Your task to perform on an android device: clear all cookies in the chrome app Image 0: 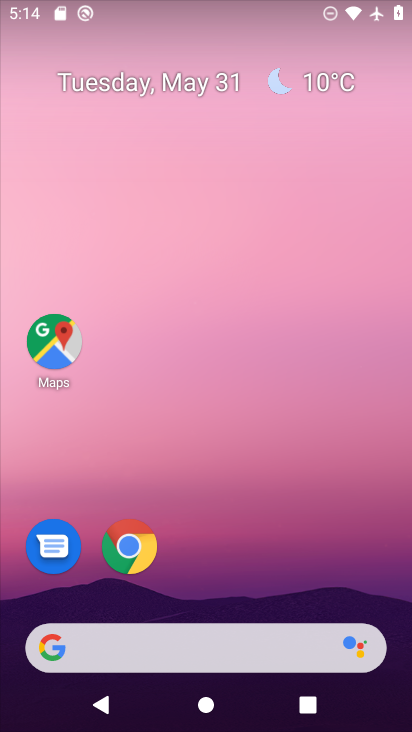
Step 0: click (142, 552)
Your task to perform on an android device: clear all cookies in the chrome app Image 1: 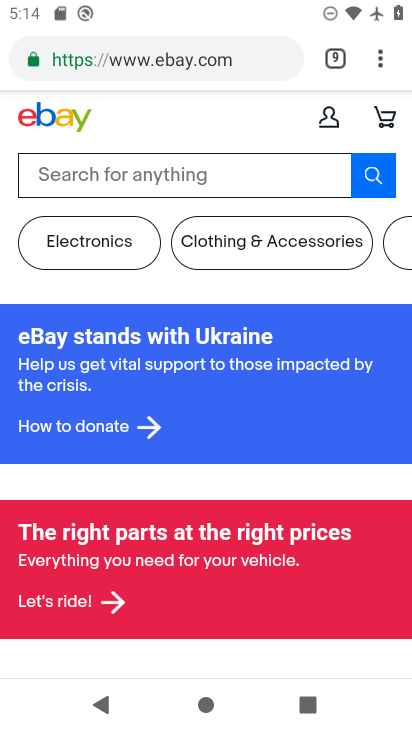
Step 1: click (381, 54)
Your task to perform on an android device: clear all cookies in the chrome app Image 2: 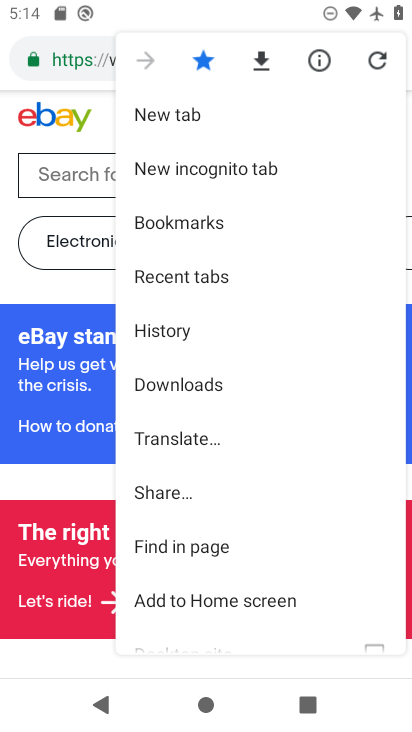
Step 2: click (195, 339)
Your task to perform on an android device: clear all cookies in the chrome app Image 3: 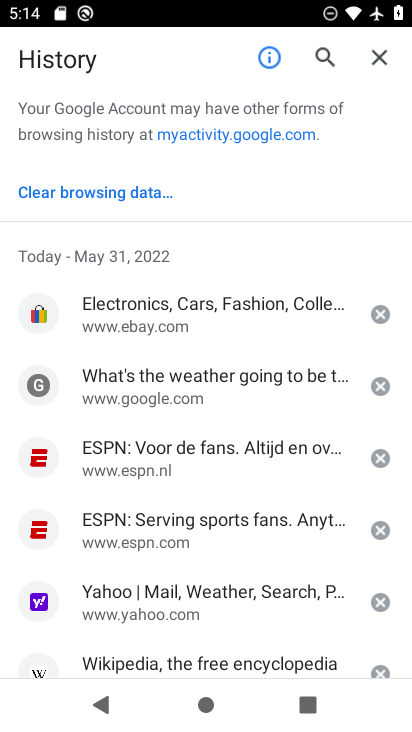
Step 3: click (84, 120)
Your task to perform on an android device: clear all cookies in the chrome app Image 4: 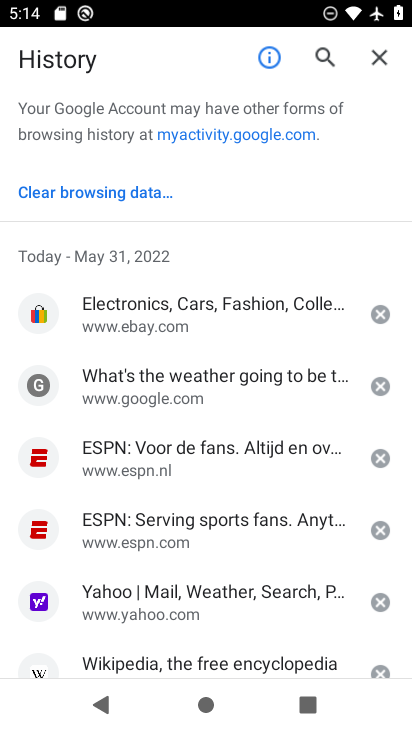
Step 4: click (78, 181)
Your task to perform on an android device: clear all cookies in the chrome app Image 5: 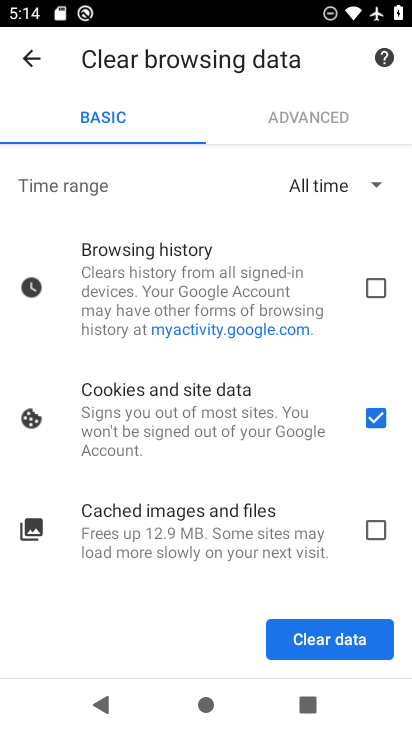
Step 5: click (341, 644)
Your task to perform on an android device: clear all cookies in the chrome app Image 6: 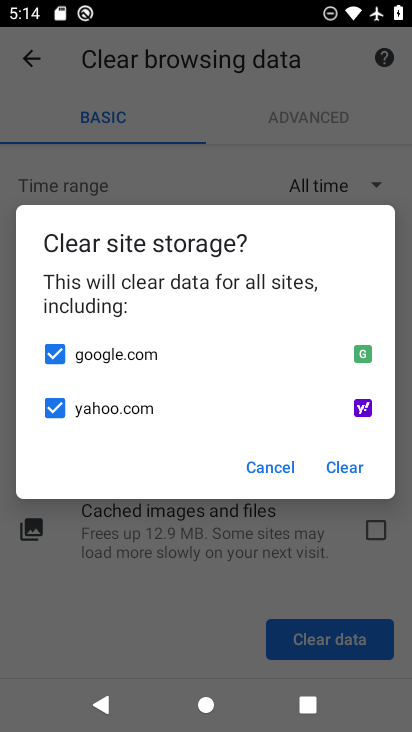
Step 6: click (357, 464)
Your task to perform on an android device: clear all cookies in the chrome app Image 7: 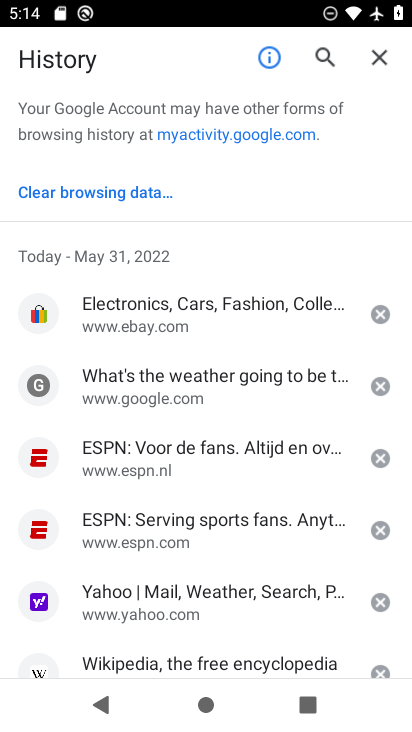
Step 7: task complete